Your task to perform on an android device: toggle wifi Image 0: 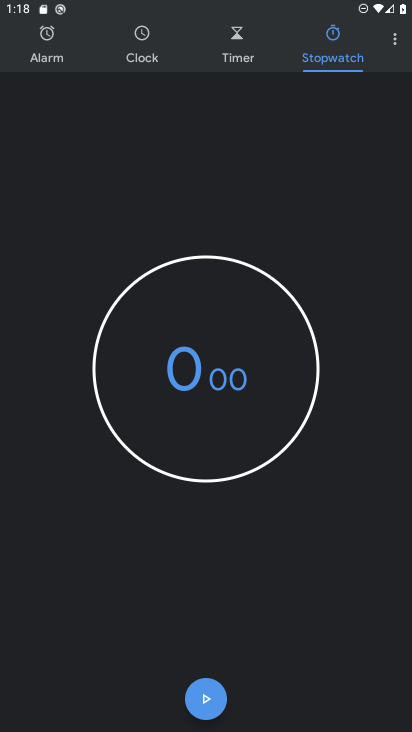
Step 0: press home button
Your task to perform on an android device: toggle wifi Image 1: 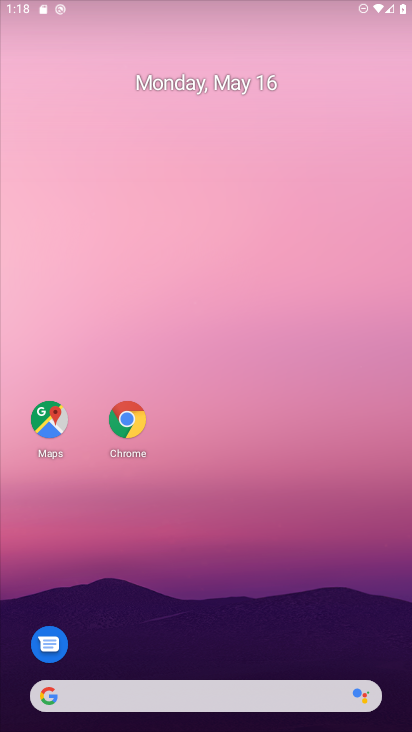
Step 1: drag from (146, 592) to (270, 203)
Your task to perform on an android device: toggle wifi Image 2: 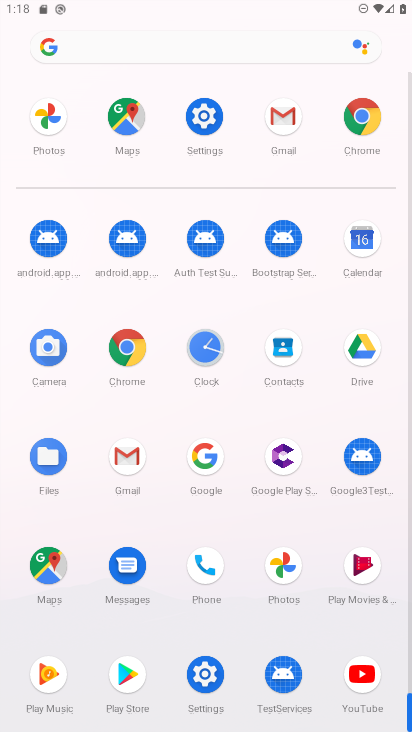
Step 2: click (198, 126)
Your task to perform on an android device: toggle wifi Image 3: 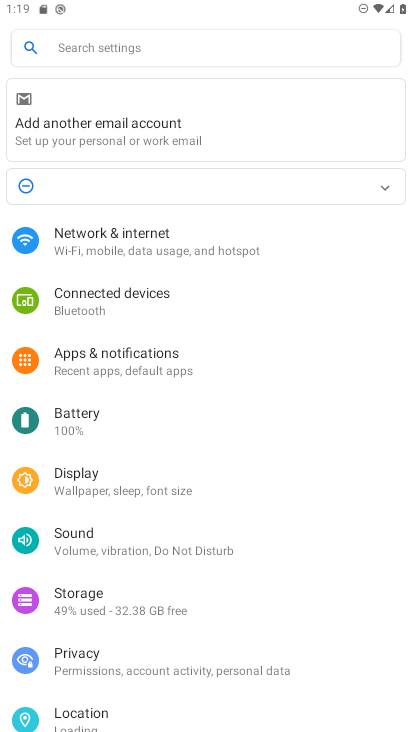
Step 3: drag from (205, 625) to (278, 396)
Your task to perform on an android device: toggle wifi Image 4: 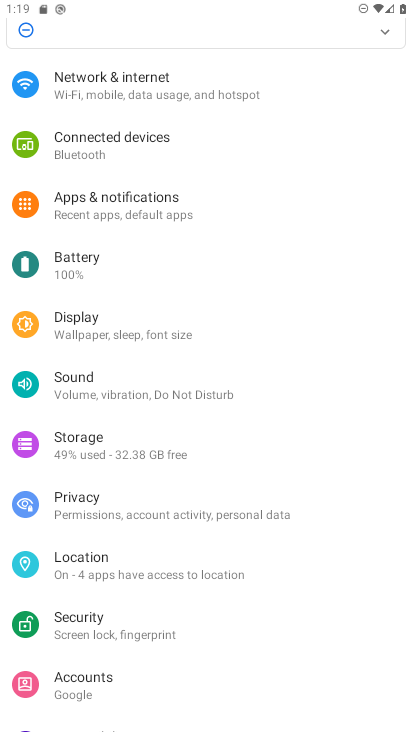
Step 4: drag from (274, 120) to (220, 704)
Your task to perform on an android device: toggle wifi Image 5: 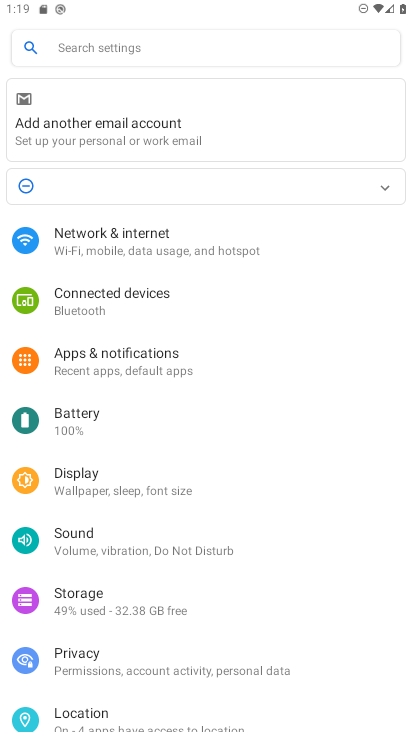
Step 5: click (138, 264)
Your task to perform on an android device: toggle wifi Image 6: 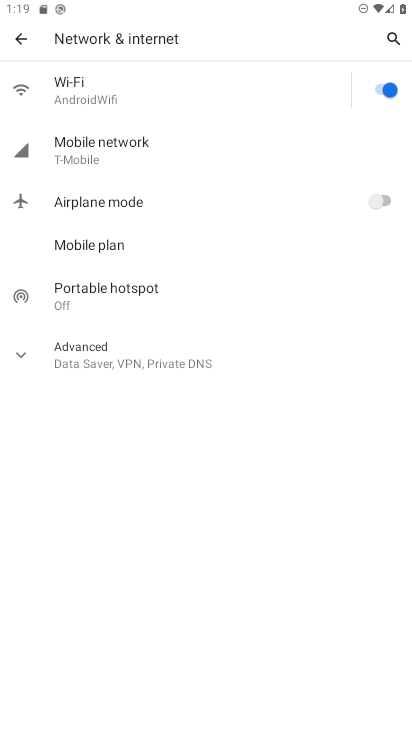
Step 6: click (381, 86)
Your task to perform on an android device: toggle wifi Image 7: 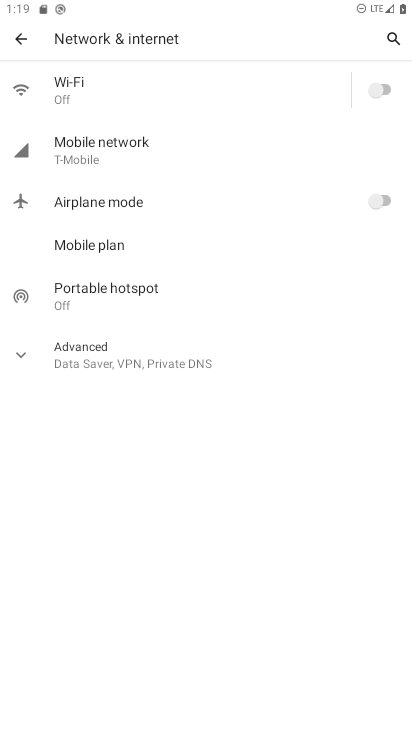
Step 7: task complete